Your task to perform on an android device: refresh tabs in the chrome app Image 0: 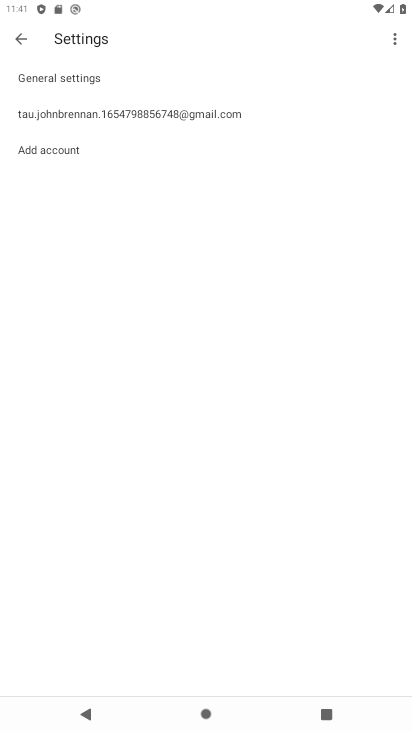
Step 0: press home button
Your task to perform on an android device: refresh tabs in the chrome app Image 1: 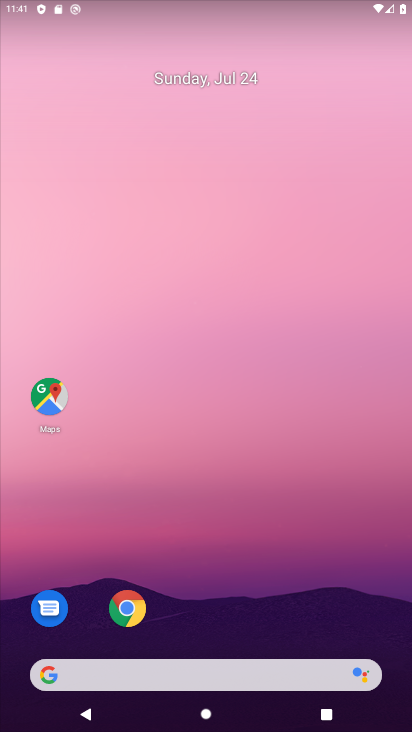
Step 1: click (138, 598)
Your task to perform on an android device: refresh tabs in the chrome app Image 2: 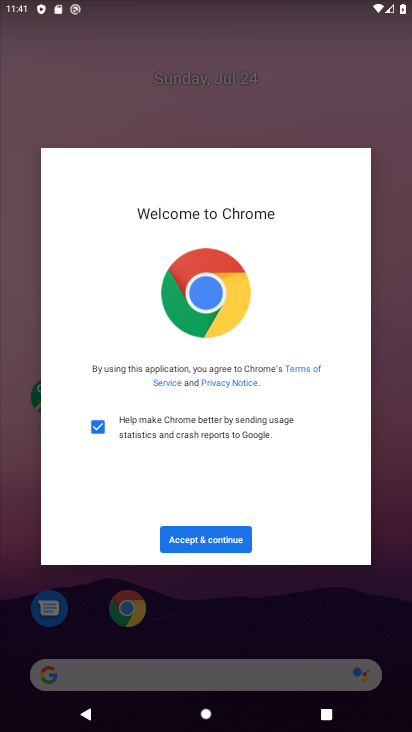
Step 2: click (181, 540)
Your task to perform on an android device: refresh tabs in the chrome app Image 3: 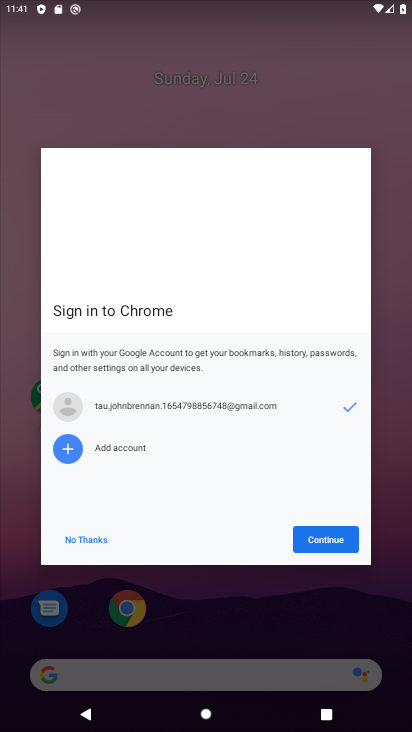
Step 3: click (296, 534)
Your task to perform on an android device: refresh tabs in the chrome app Image 4: 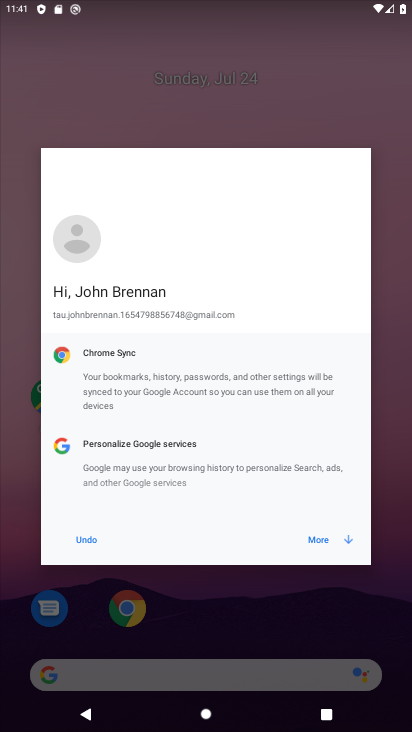
Step 4: click (297, 535)
Your task to perform on an android device: refresh tabs in the chrome app Image 5: 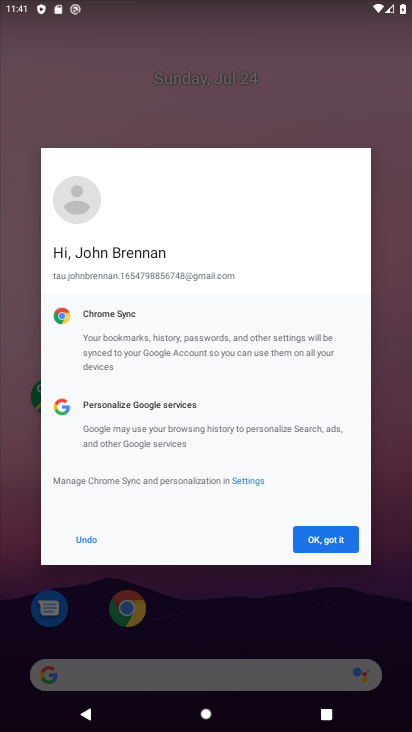
Step 5: click (297, 535)
Your task to perform on an android device: refresh tabs in the chrome app Image 6: 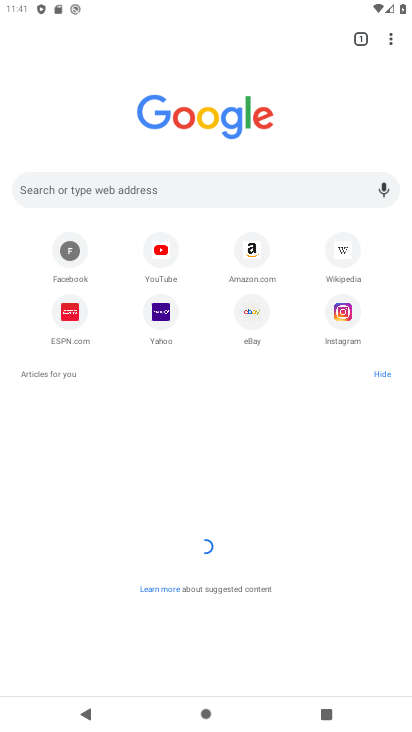
Step 6: task complete